Your task to perform on an android device: move an email to a new category in the gmail app Image 0: 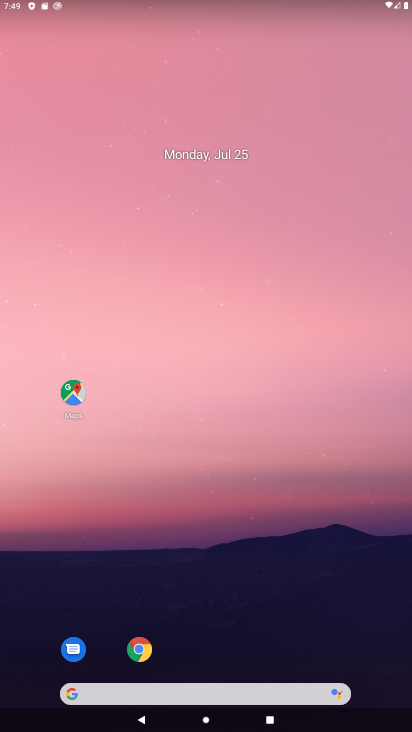
Step 0: drag from (248, 659) to (209, 95)
Your task to perform on an android device: move an email to a new category in the gmail app Image 1: 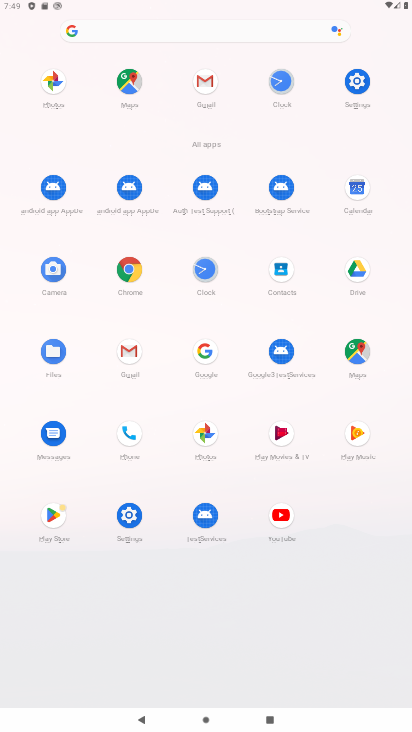
Step 1: click (211, 83)
Your task to perform on an android device: move an email to a new category in the gmail app Image 2: 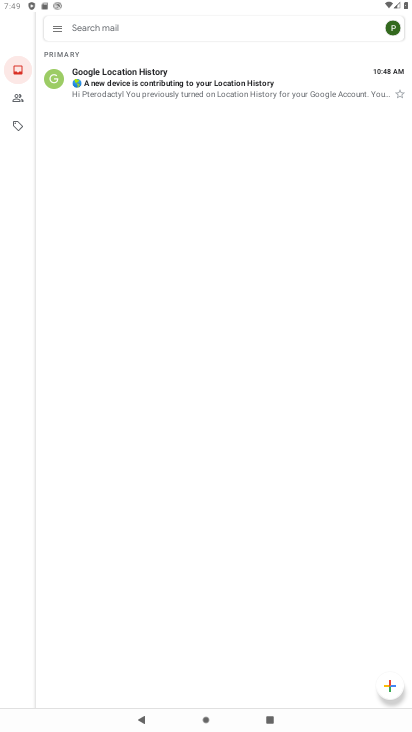
Step 2: click (211, 83)
Your task to perform on an android device: move an email to a new category in the gmail app Image 3: 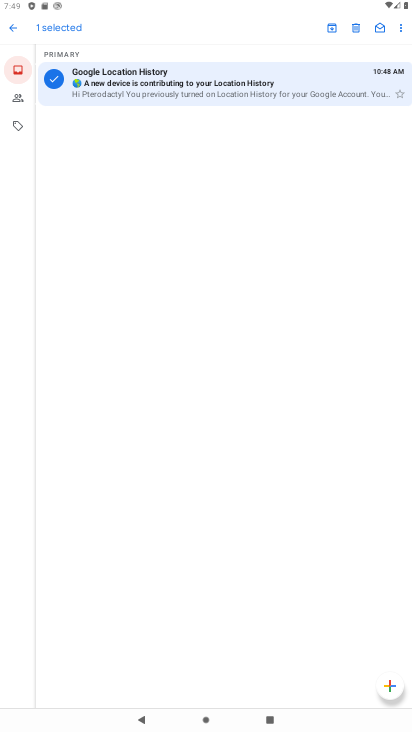
Step 3: click (396, 32)
Your task to perform on an android device: move an email to a new category in the gmail app Image 4: 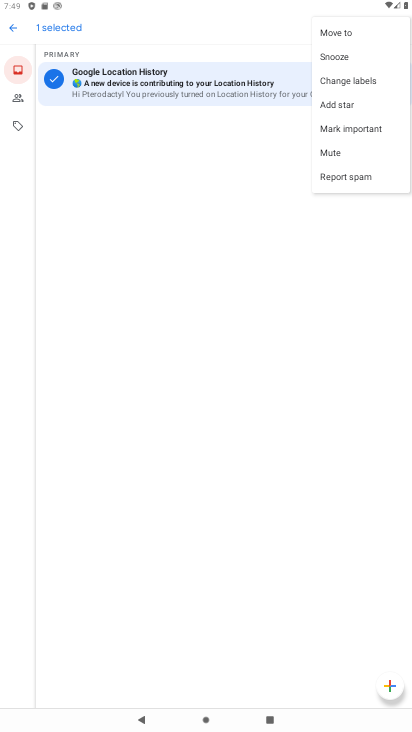
Step 4: click (367, 36)
Your task to perform on an android device: move an email to a new category in the gmail app Image 5: 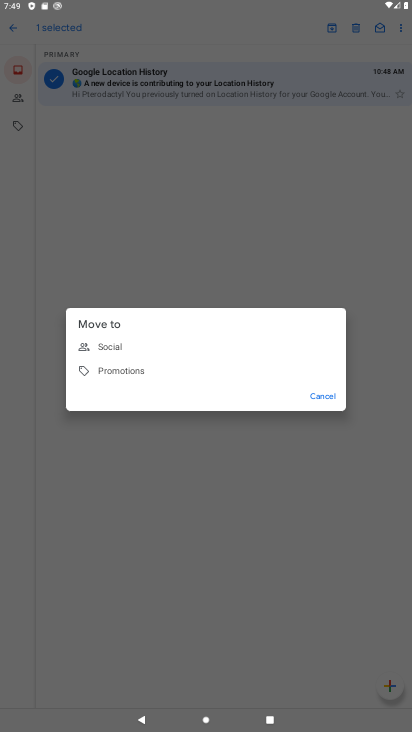
Step 5: click (94, 372)
Your task to perform on an android device: move an email to a new category in the gmail app Image 6: 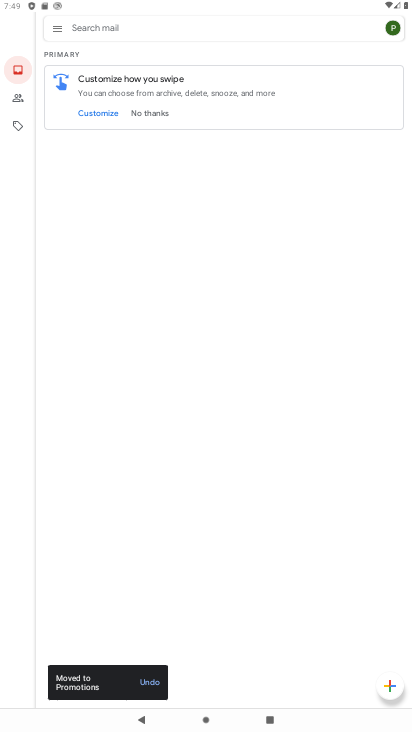
Step 6: task complete